Your task to perform on an android device: toggle notification dots Image 0: 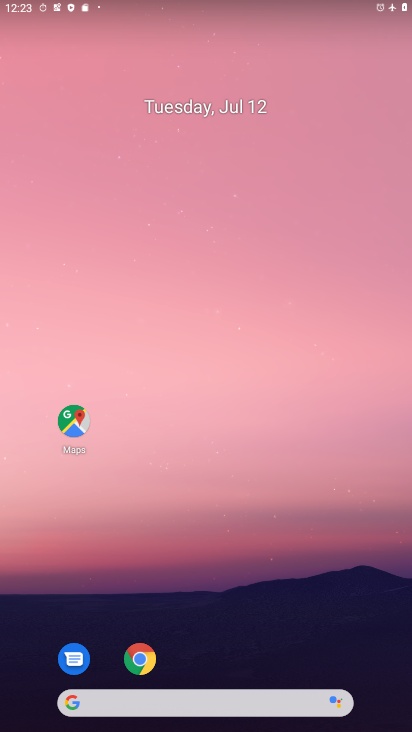
Step 0: drag from (170, 517) to (219, 70)
Your task to perform on an android device: toggle notification dots Image 1: 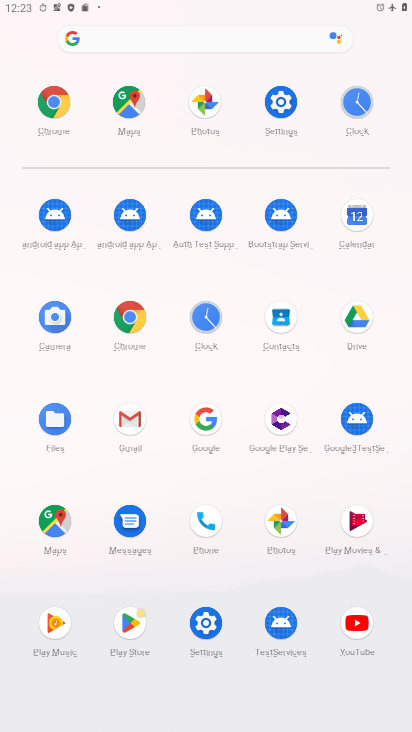
Step 1: click (196, 626)
Your task to perform on an android device: toggle notification dots Image 2: 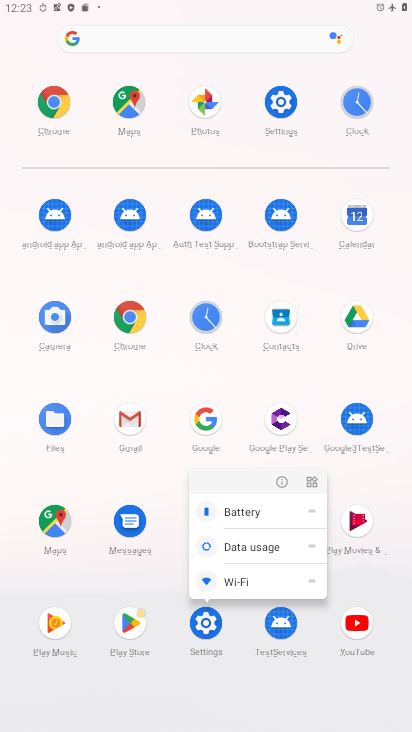
Step 2: click (283, 476)
Your task to perform on an android device: toggle notification dots Image 3: 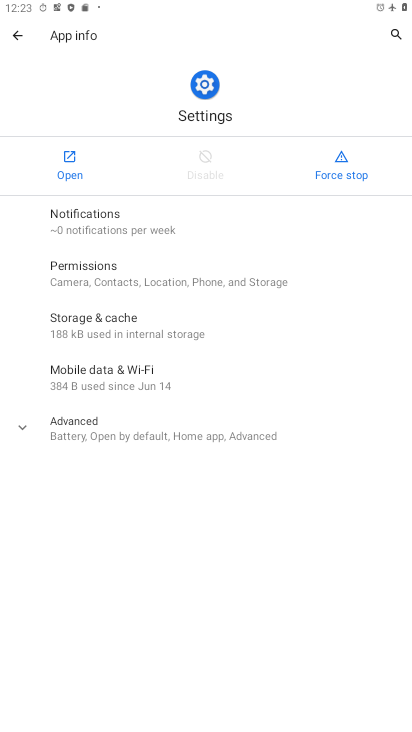
Step 3: click (87, 137)
Your task to perform on an android device: toggle notification dots Image 4: 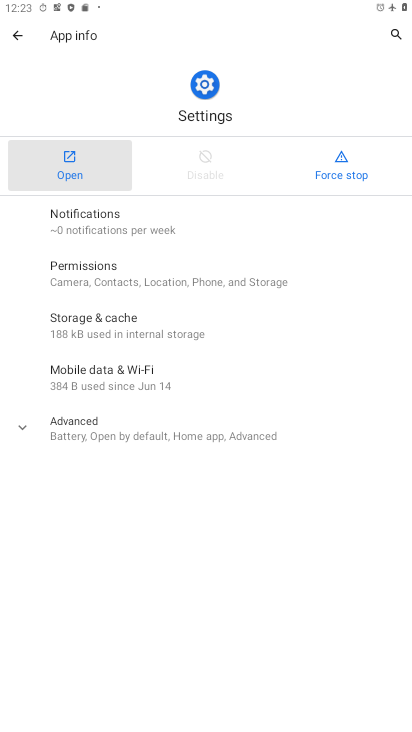
Step 4: click (69, 151)
Your task to perform on an android device: toggle notification dots Image 5: 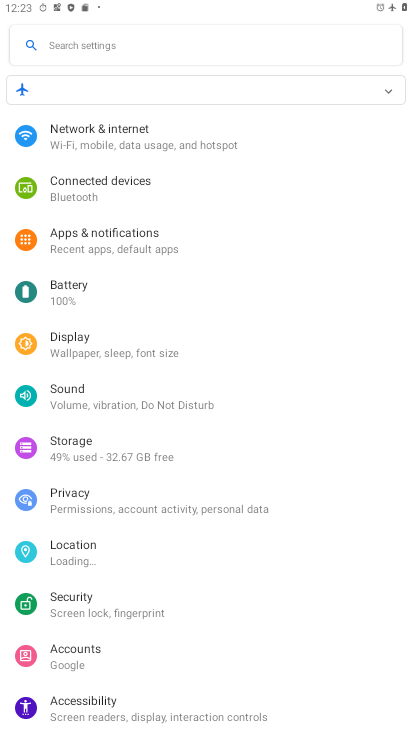
Step 5: click (187, 237)
Your task to perform on an android device: toggle notification dots Image 6: 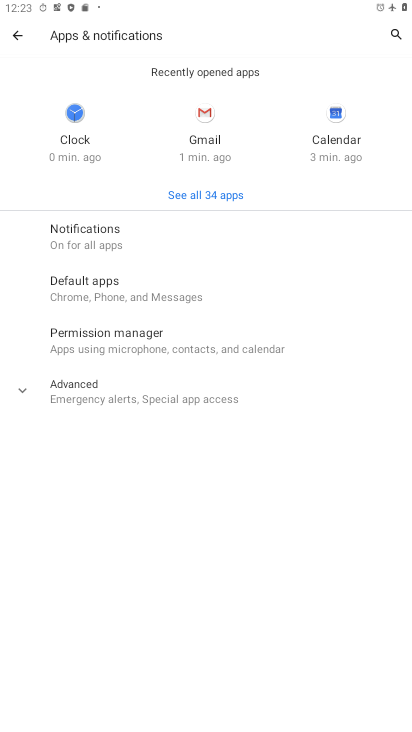
Step 6: click (162, 205)
Your task to perform on an android device: toggle notification dots Image 7: 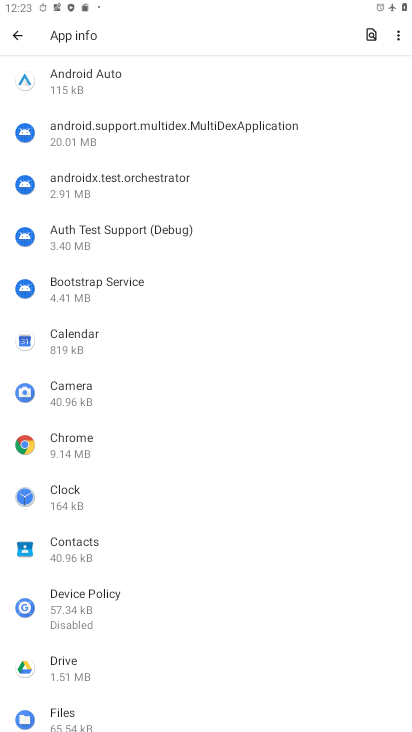
Step 7: click (12, 33)
Your task to perform on an android device: toggle notification dots Image 8: 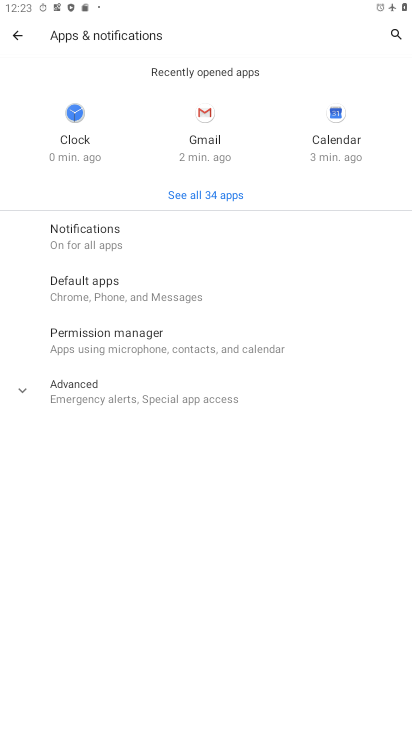
Step 8: click (109, 230)
Your task to perform on an android device: toggle notification dots Image 9: 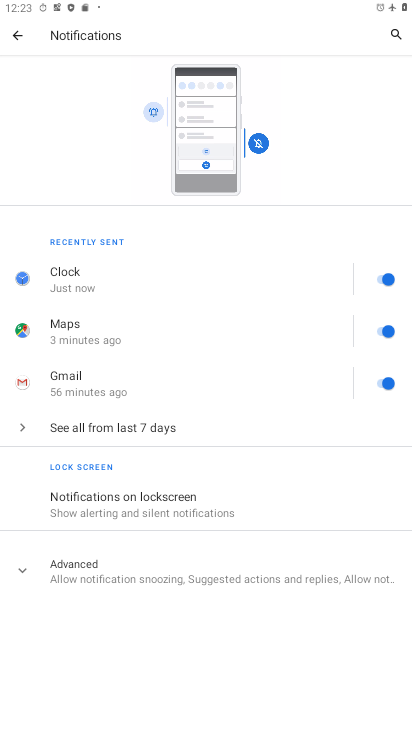
Step 9: click (90, 569)
Your task to perform on an android device: toggle notification dots Image 10: 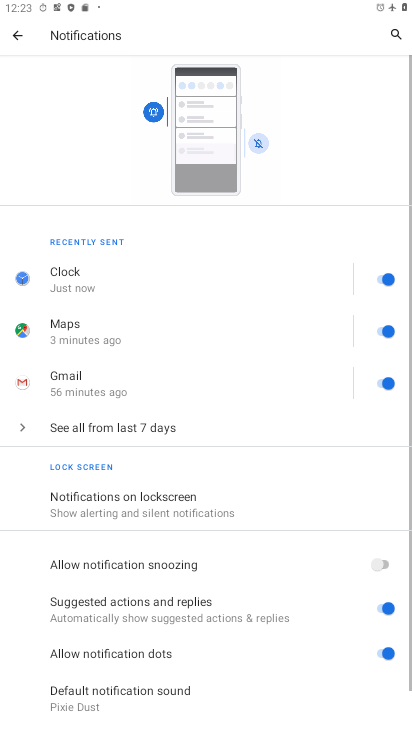
Step 10: drag from (251, 589) to (270, 164)
Your task to perform on an android device: toggle notification dots Image 11: 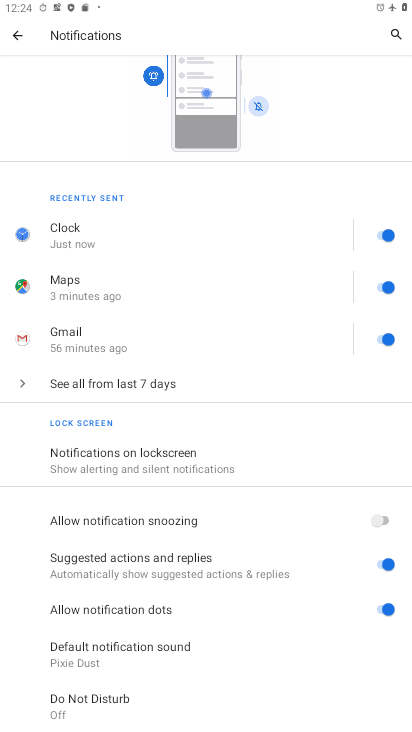
Step 11: click (380, 610)
Your task to perform on an android device: toggle notification dots Image 12: 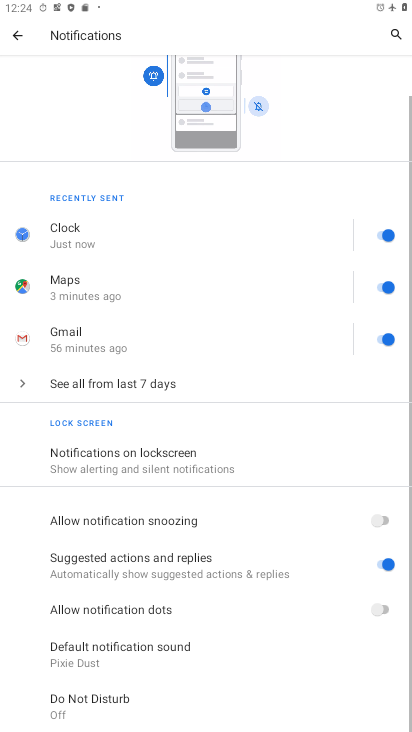
Step 12: task complete